Your task to perform on an android device: turn on sleep mode Image 0: 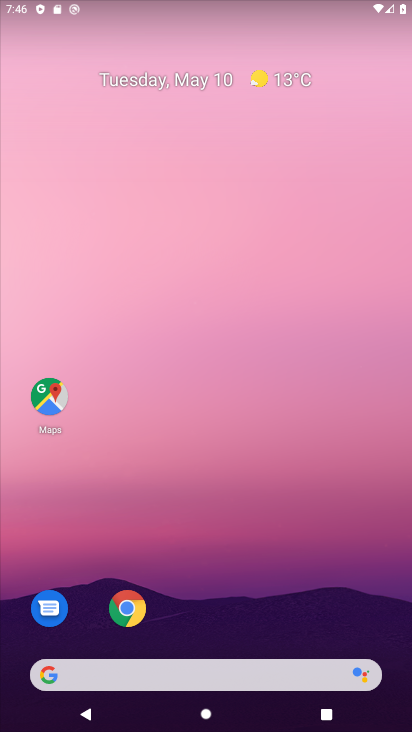
Step 0: drag from (230, 615) to (209, 56)
Your task to perform on an android device: turn on sleep mode Image 1: 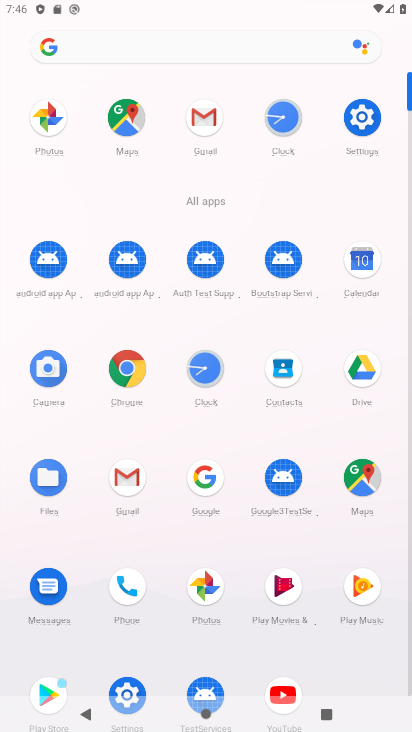
Step 1: click (361, 120)
Your task to perform on an android device: turn on sleep mode Image 2: 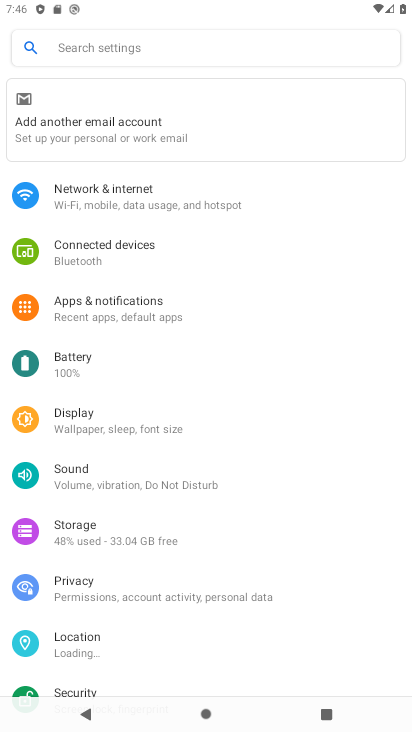
Step 2: drag from (229, 561) to (260, 434)
Your task to perform on an android device: turn on sleep mode Image 3: 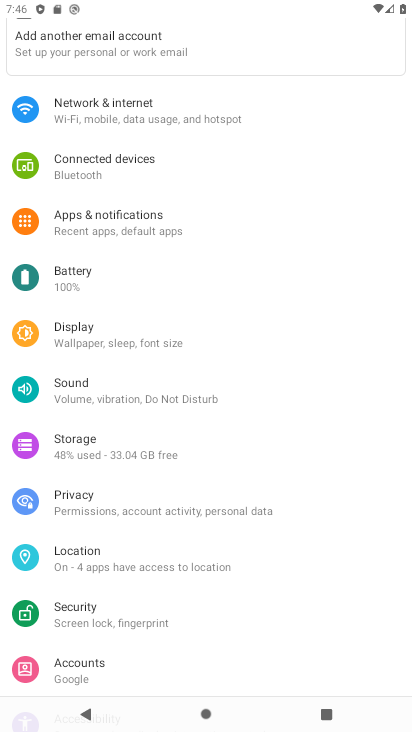
Step 3: drag from (254, 513) to (319, 417)
Your task to perform on an android device: turn on sleep mode Image 4: 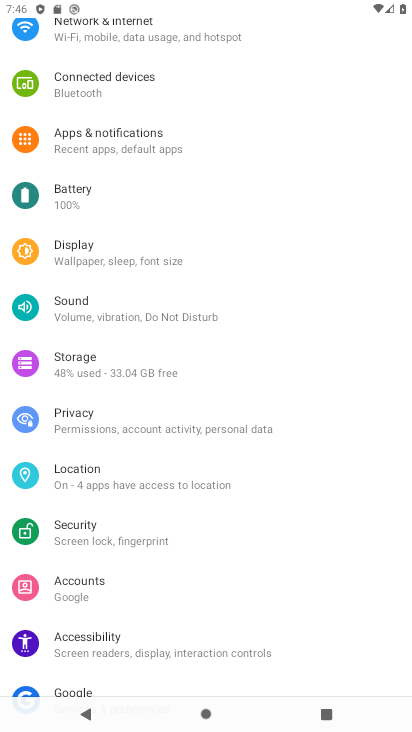
Step 4: drag from (222, 254) to (260, 380)
Your task to perform on an android device: turn on sleep mode Image 5: 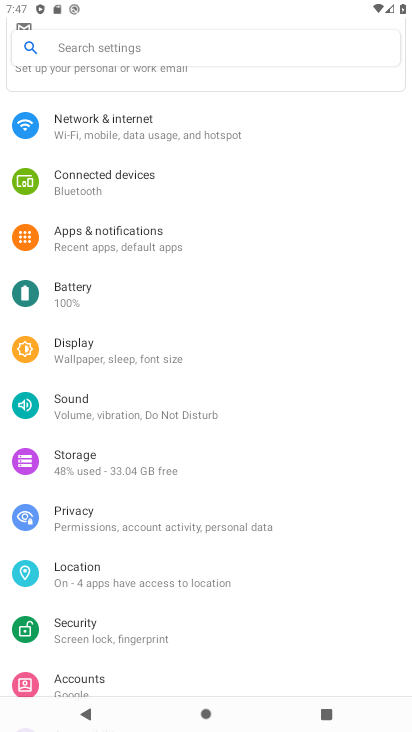
Step 5: drag from (162, 486) to (227, 300)
Your task to perform on an android device: turn on sleep mode Image 6: 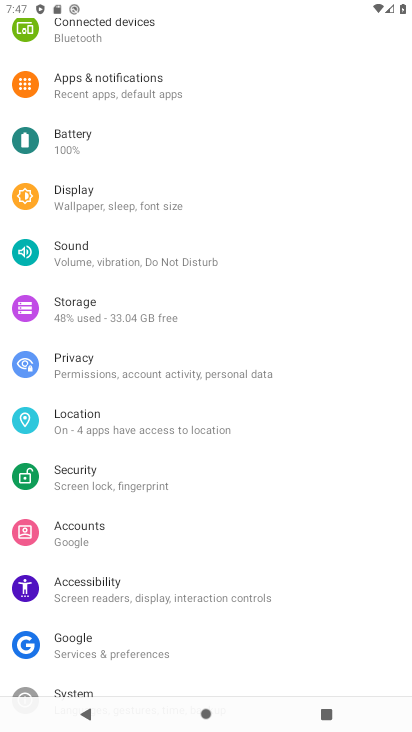
Step 6: drag from (213, 314) to (219, 379)
Your task to perform on an android device: turn on sleep mode Image 7: 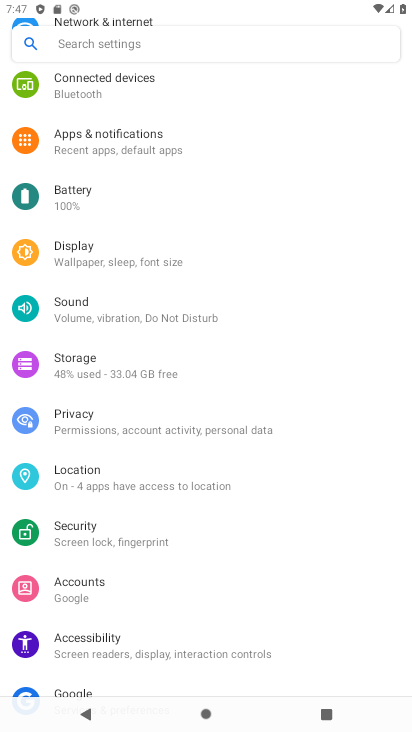
Step 7: click (167, 270)
Your task to perform on an android device: turn on sleep mode Image 8: 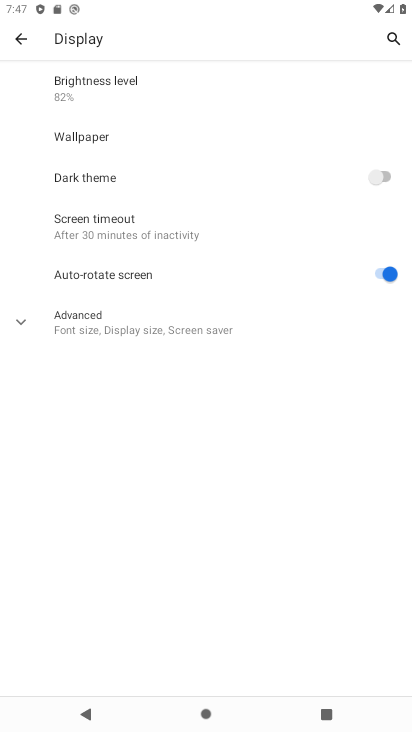
Step 8: click (179, 339)
Your task to perform on an android device: turn on sleep mode Image 9: 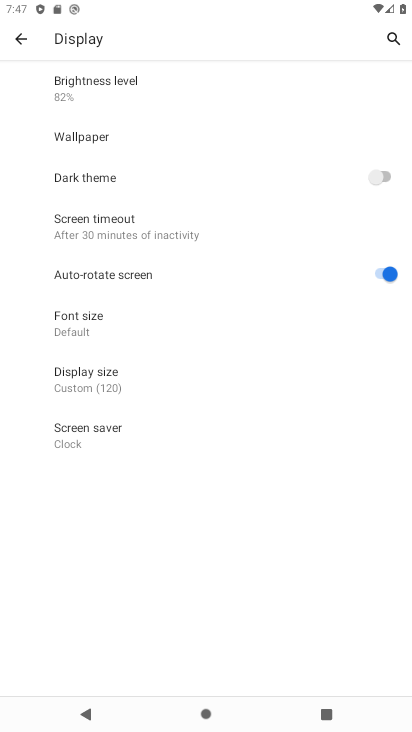
Step 9: task complete